Your task to perform on an android device: Open Google Maps Image 0: 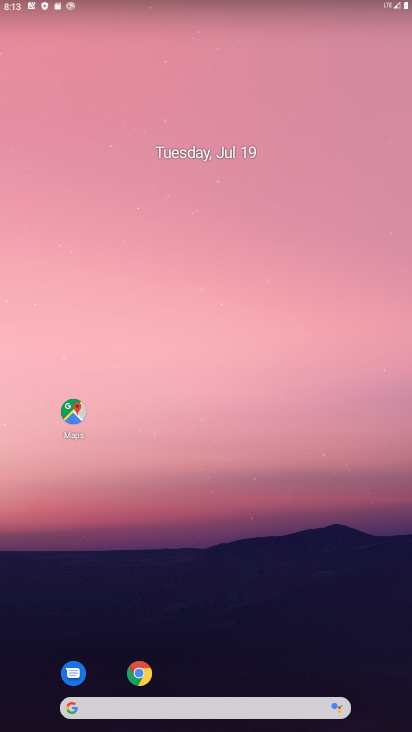
Step 0: drag from (366, 653) to (205, 16)
Your task to perform on an android device: Open Google Maps Image 1: 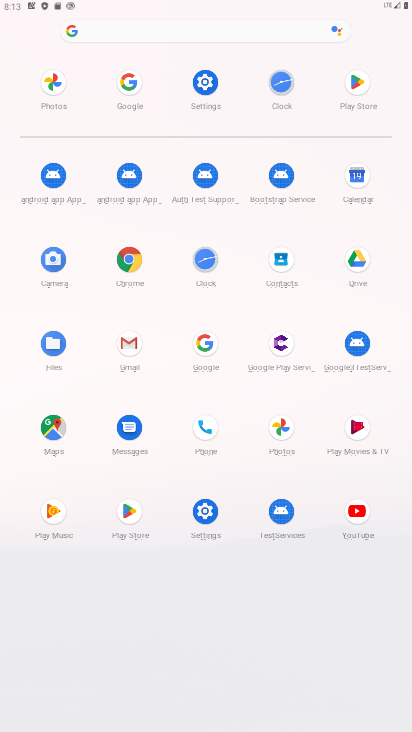
Step 1: click (56, 427)
Your task to perform on an android device: Open Google Maps Image 2: 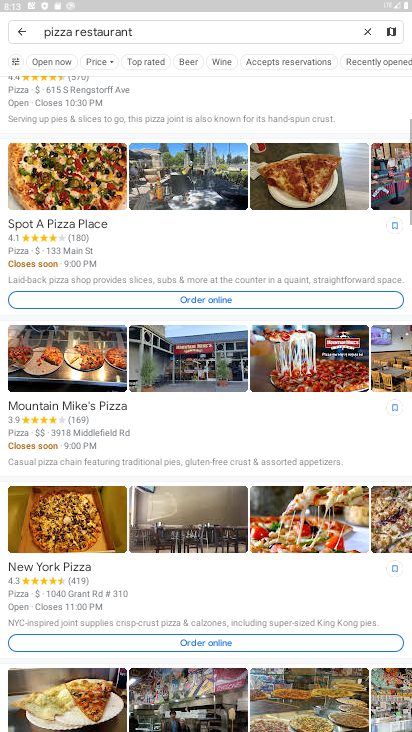
Step 2: click (365, 33)
Your task to perform on an android device: Open Google Maps Image 3: 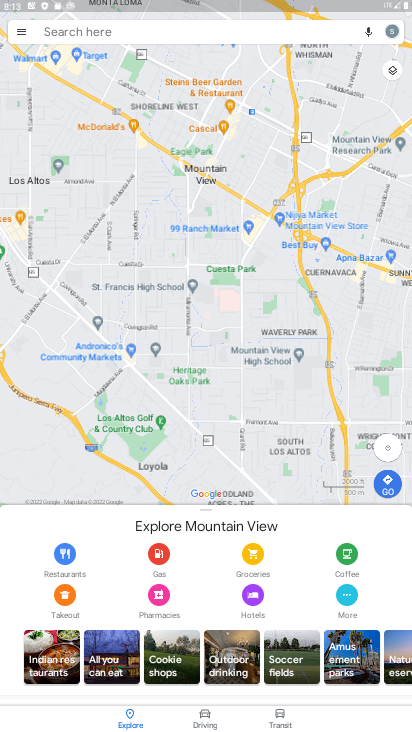
Step 3: task complete